Your task to perform on an android device: turn off location history Image 0: 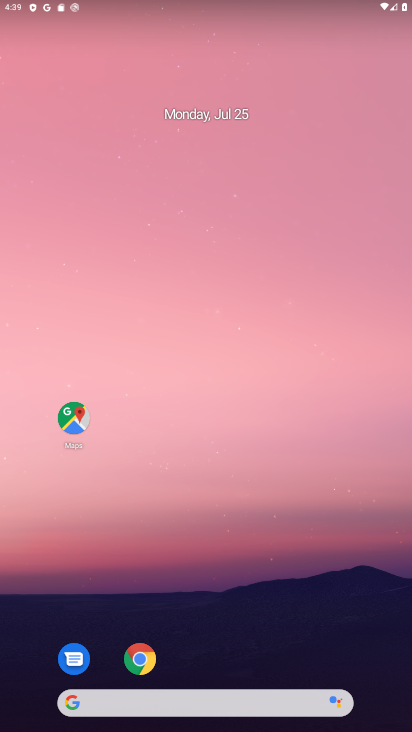
Step 0: press home button
Your task to perform on an android device: turn off location history Image 1: 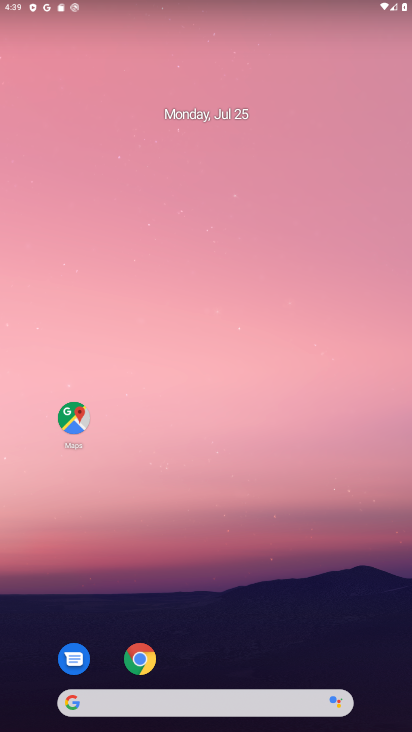
Step 1: drag from (198, 634) to (28, 9)
Your task to perform on an android device: turn off location history Image 2: 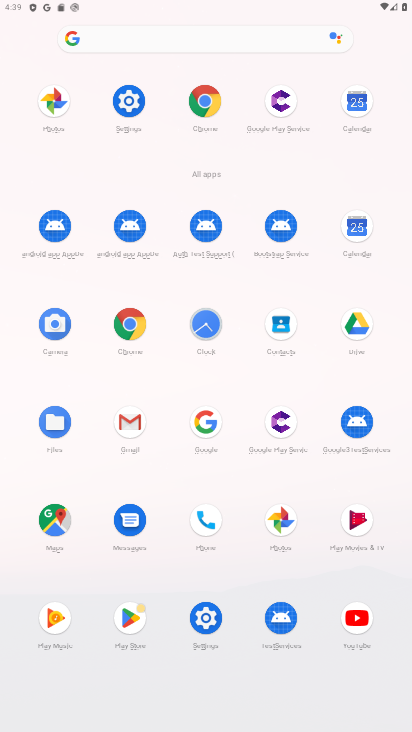
Step 2: click (125, 107)
Your task to perform on an android device: turn off location history Image 3: 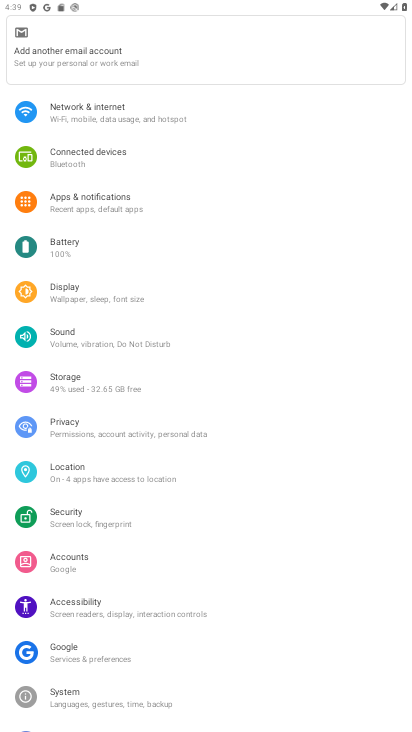
Step 3: click (82, 481)
Your task to perform on an android device: turn off location history Image 4: 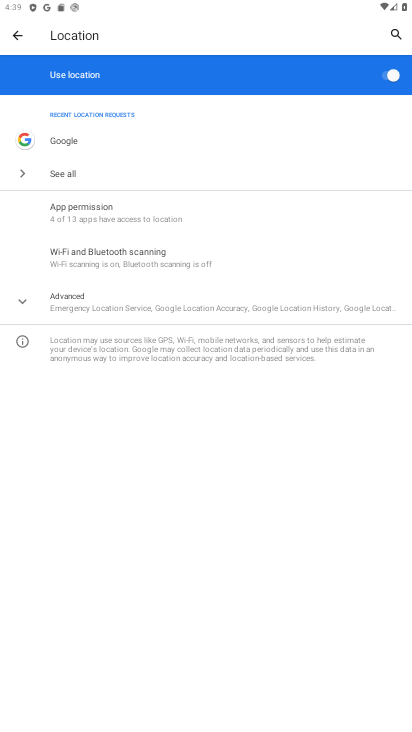
Step 4: click (65, 303)
Your task to perform on an android device: turn off location history Image 5: 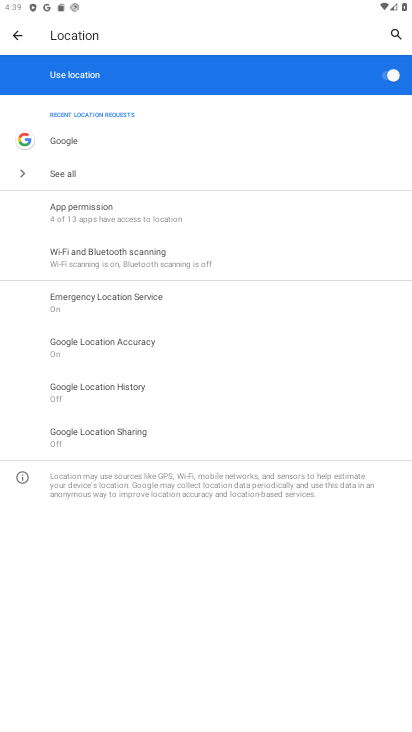
Step 5: click (80, 393)
Your task to perform on an android device: turn off location history Image 6: 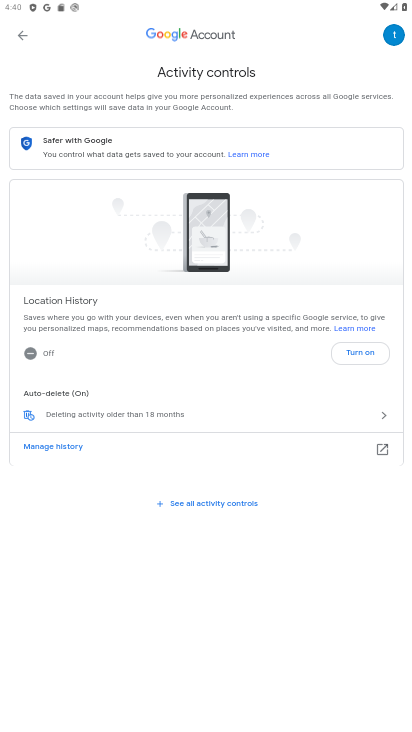
Step 6: task complete